Your task to perform on an android device: change the upload size in google photos Image 0: 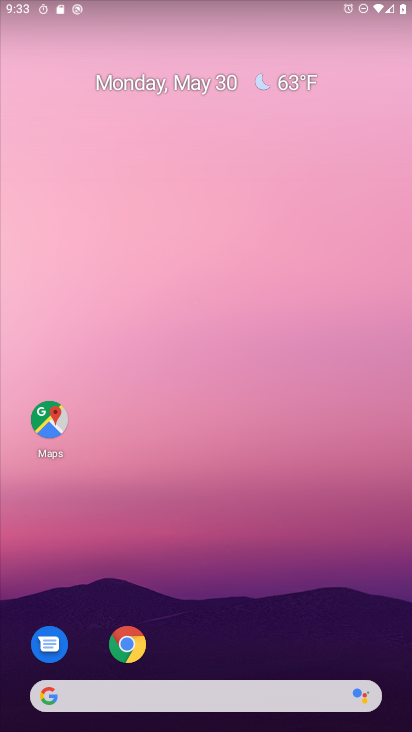
Step 0: drag from (223, 618) to (229, 68)
Your task to perform on an android device: change the upload size in google photos Image 1: 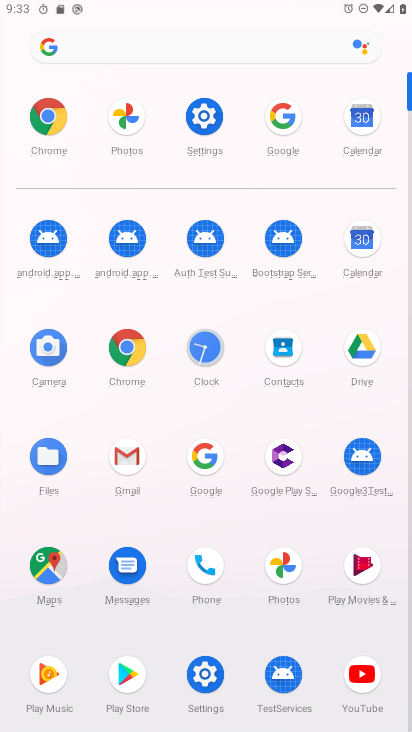
Step 1: click (129, 119)
Your task to perform on an android device: change the upload size in google photos Image 2: 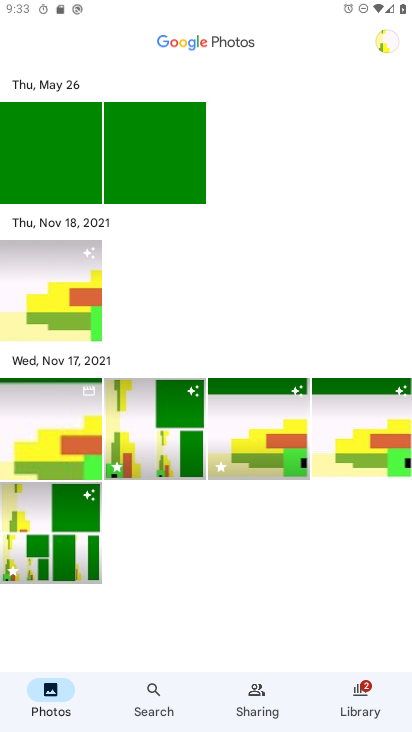
Step 2: click (383, 44)
Your task to perform on an android device: change the upload size in google photos Image 3: 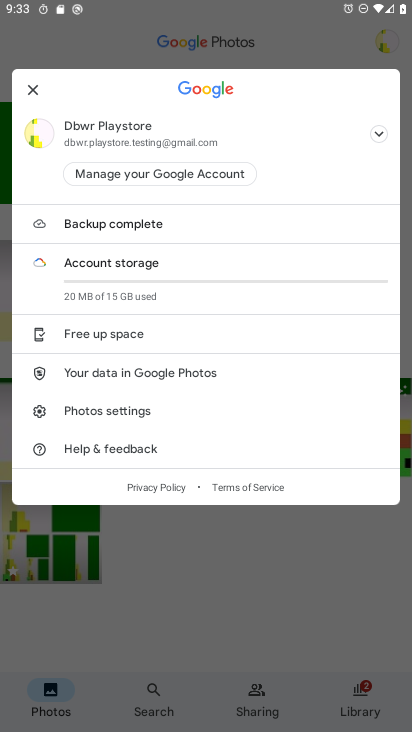
Step 3: click (114, 410)
Your task to perform on an android device: change the upload size in google photos Image 4: 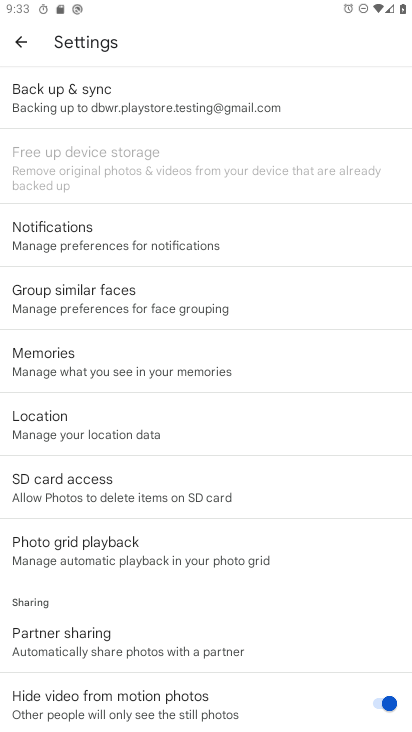
Step 4: click (83, 97)
Your task to perform on an android device: change the upload size in google photos Image 5: 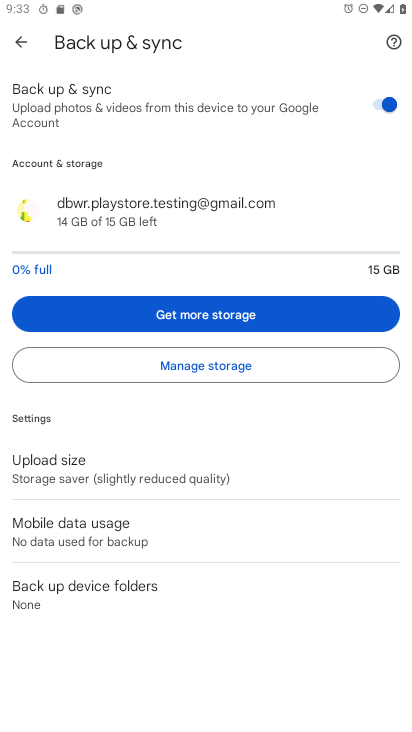
Step 5: click (131, 468)
Your task to perform on an android device: change the upload size in google photos Image 6: 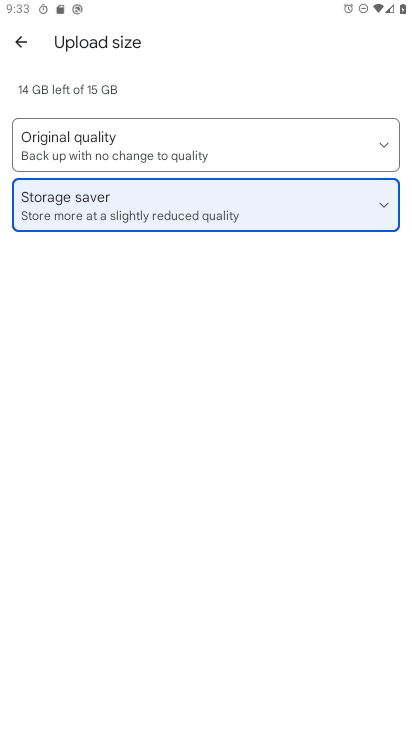
Step 6: click (142, 144)
Your task to perform on an android device: change the upload size in google photos Image 7: 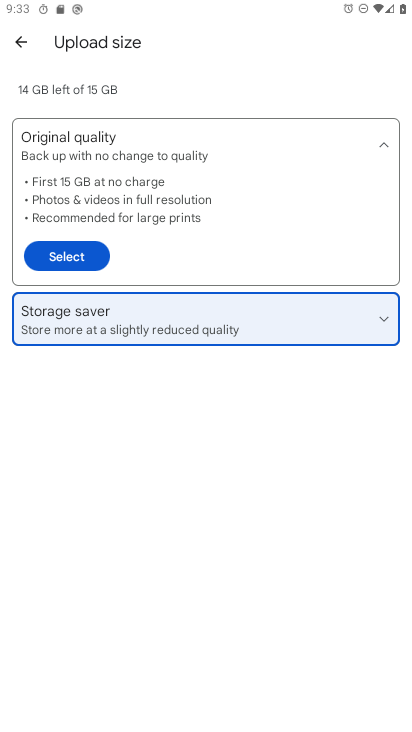
Step 7: click (63, 250)
Your task to perform on an android device: change the upload size in google photos Image 8: 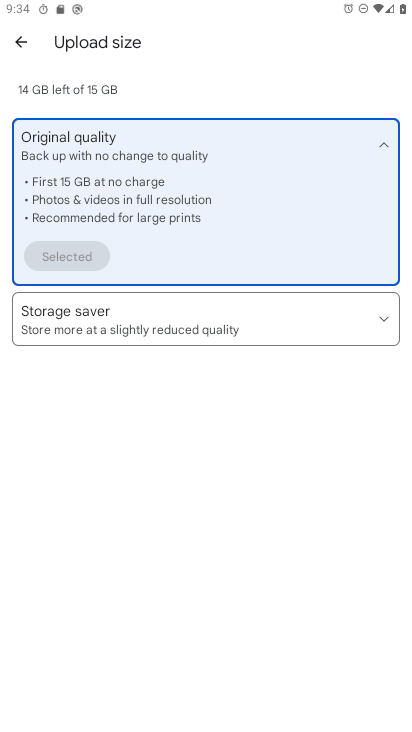
Step 8: task complete